Your task to perform on an android device: Show me the alarms in the clock app Image 0: 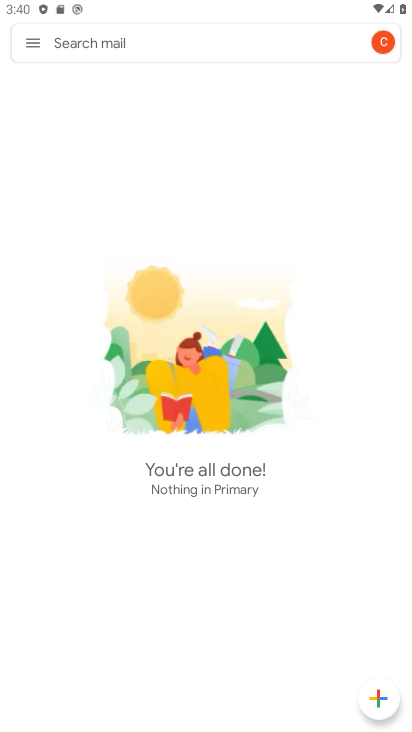
Step 0: press home button
Your task to perform on an android device: Show me the alarms in the clock app Image 1: 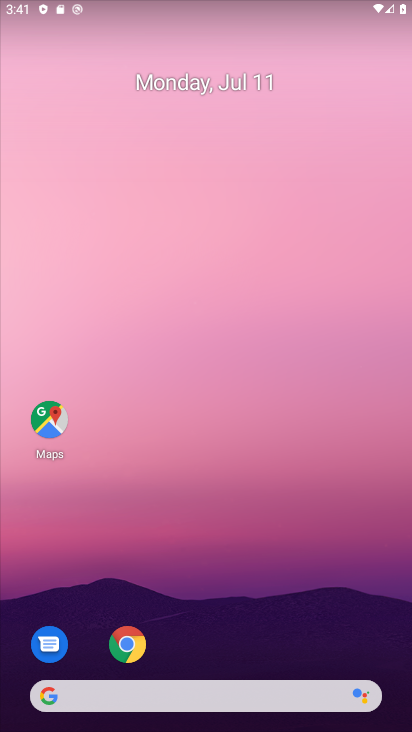
Step 1: drag from (220, 668) to (281, 54)
Your task to perform on an android device: Show me the alarms in the clock app Image 2: 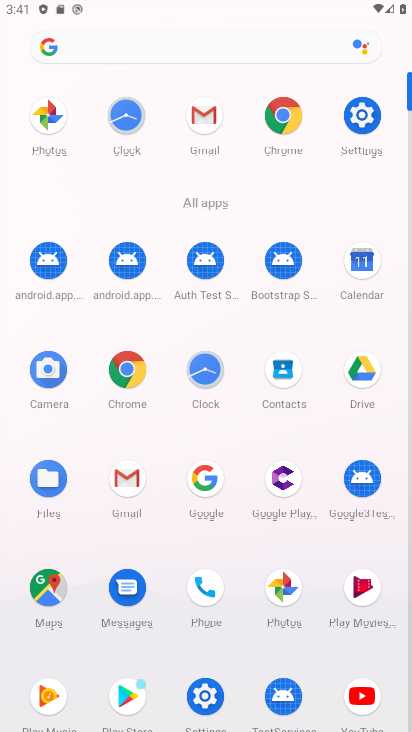
Step 2: click (204, 363)
Your task to perform on an android device: Show me the alarms in the clock app Image 3: 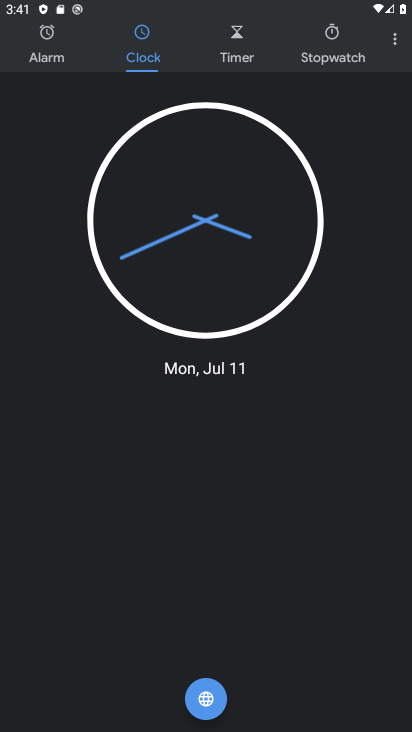
Step 3: click (45, 34)
Your task to perform on an android device: Show me the alarms in the clock app Image 4: 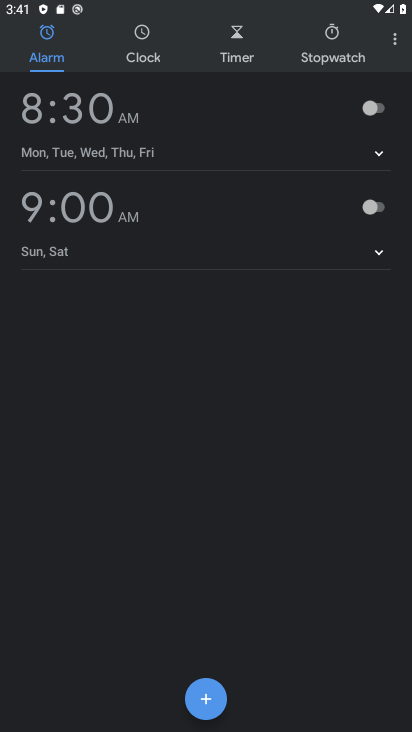
Step 4: task complete